Your task to perform on an android device: Open settings Image 0: 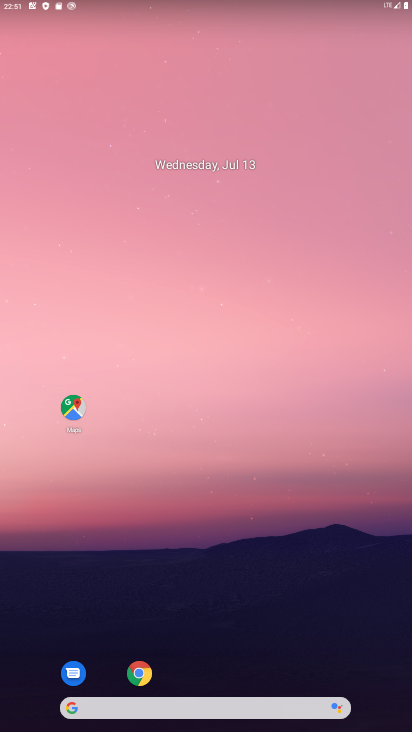
Step 0: drag from (232, 379) to (248, 255)
Your task to perform on an android device: Open settings Image 1: 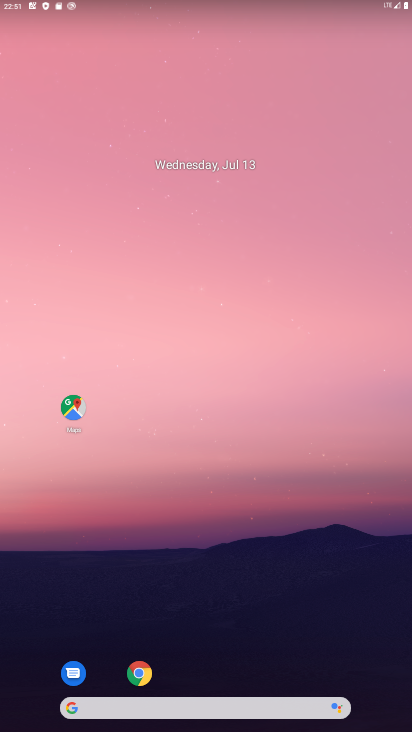
Step 1: drag from (239, 640) to (275, 197)
Your task to perform on an android device: Open settings Image 2: 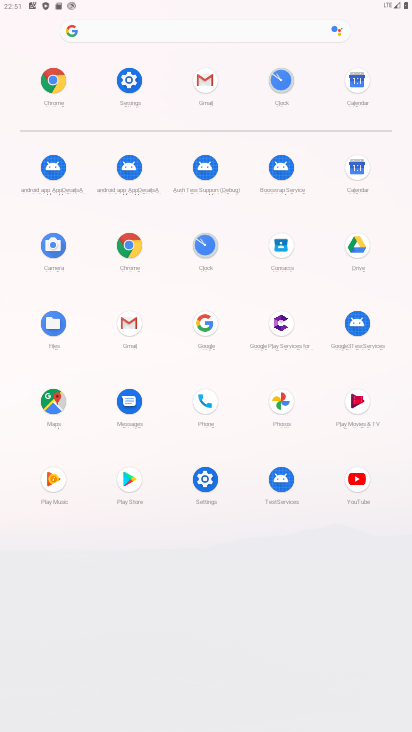
Step 2: click (200, 482)
Your task to perform on an android device: Open settings Image 3: 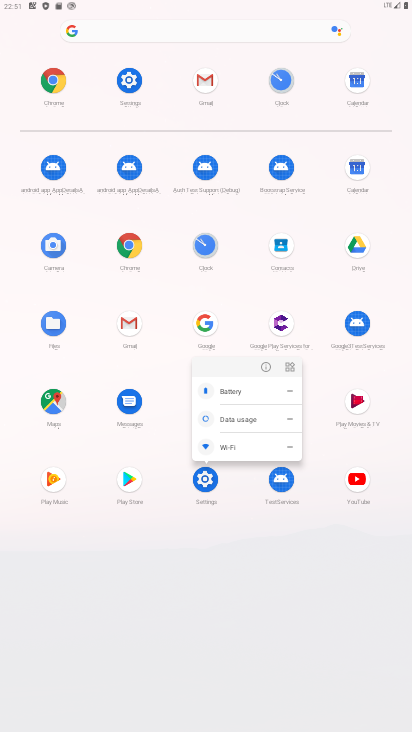
Step 3: click (265, 358)
Your task to perform on an android device: Open settings Image 4: 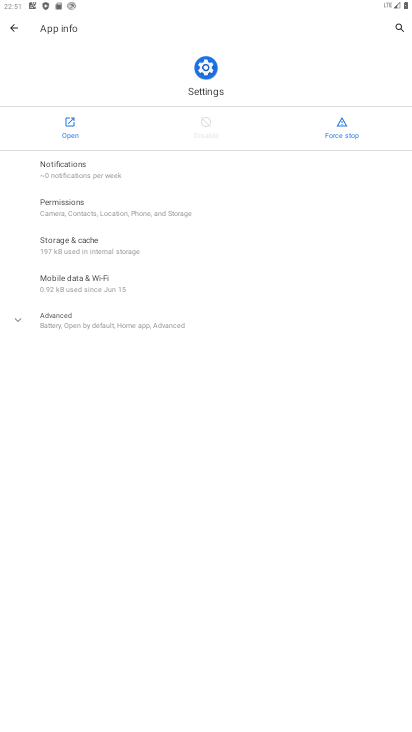
Step 4: click (73, 132)
Your task to perform on an android device: Open settings Image 5: 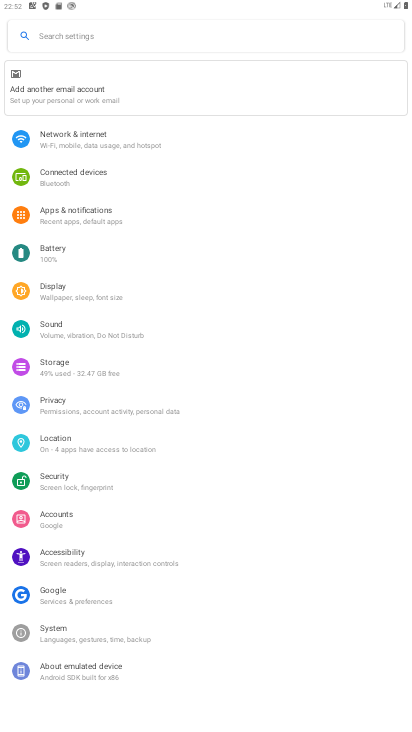
Step 5: task complete